Your task to perform on an android device: Go to notification settings Image 0: 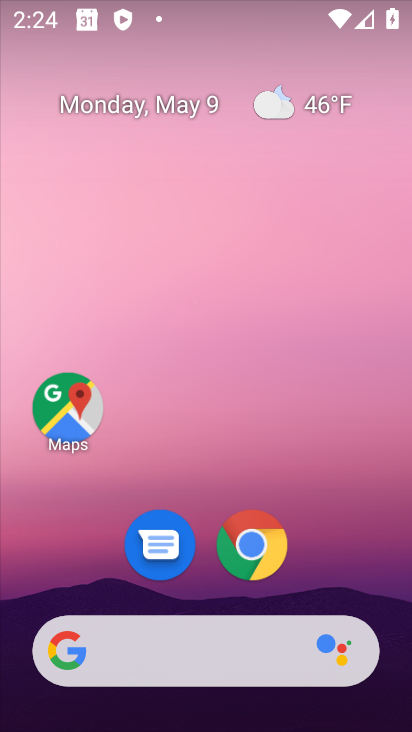
Step 0: drag from (201, 598) to (196, 217)
Your task to perform on an android device: Go to notification settings Image 1: 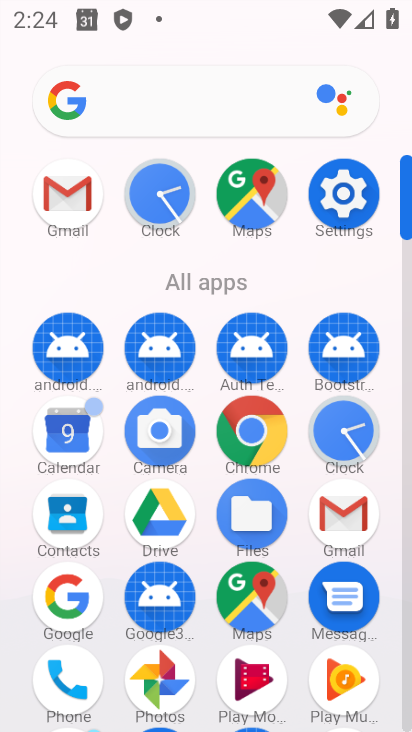
Step 1: click (324, 171)
Your task to perform on an android device: Go to notification settings Image 2: 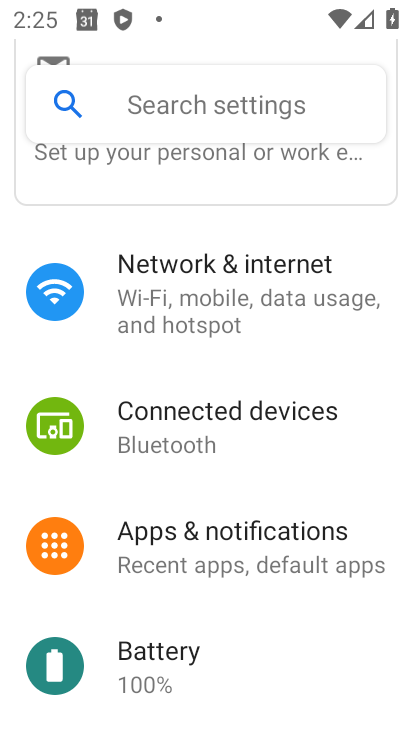
Step 2: click (221, 551)
Your task to perform on an android device: Go to notification settings Image 3: 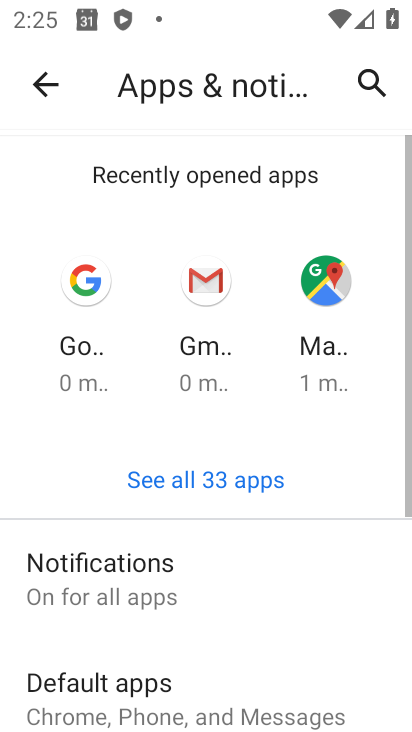
Step 3: drag from (261, 634) to (259, 450)
Your task to perform on an android device: Go to notification settings Image 4: 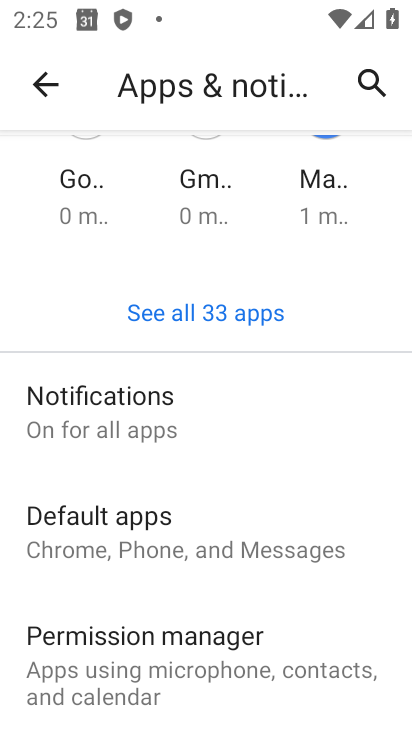
Step 4: click (184, 442)
Your task to perform on an android device: Go to notification settings Image 5: 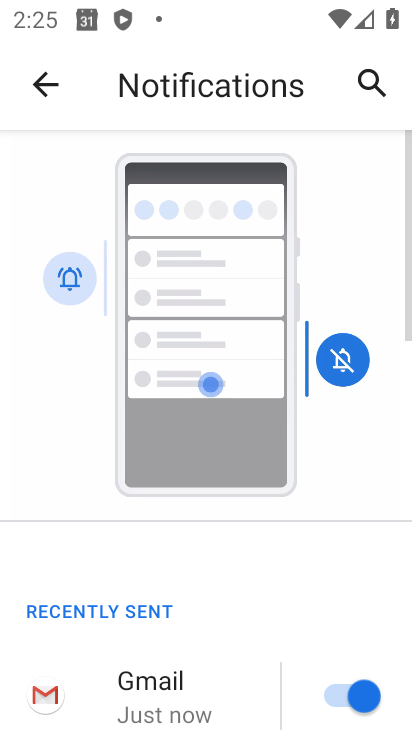
Step 5: task complete